Your task to perform on an android device: Go to Amazon Image 0: 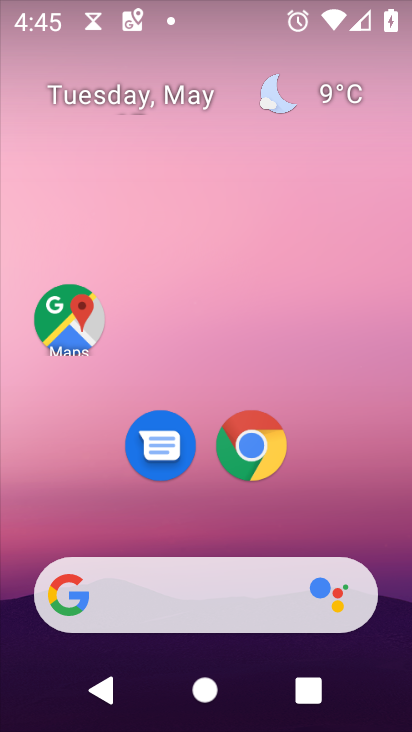
Step 0: drag from (391, 568) to (387, 19)
Your task to perform on an android device: Go to Amazon Image 1: 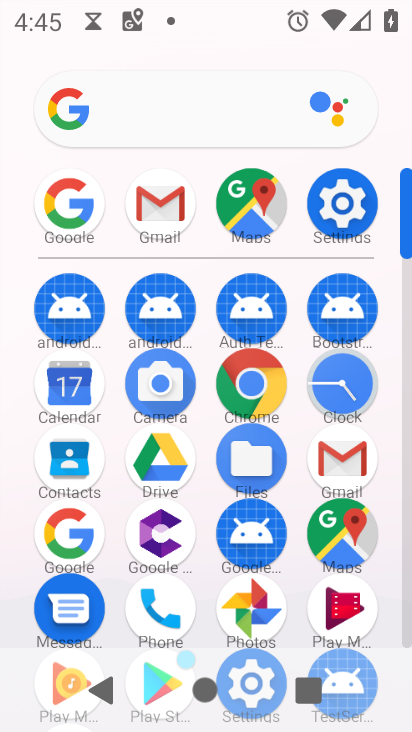
Step 1: click (229, 352)
Your task to perform on an android device: Go to Amazon Image 2: 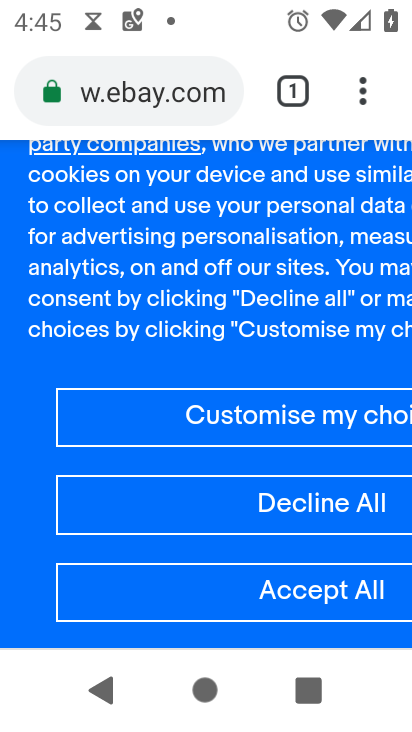
Step 2: drag from (358, 90) to (259, 178)
Your task to perform on an android device: Go to Amazon Image 3: 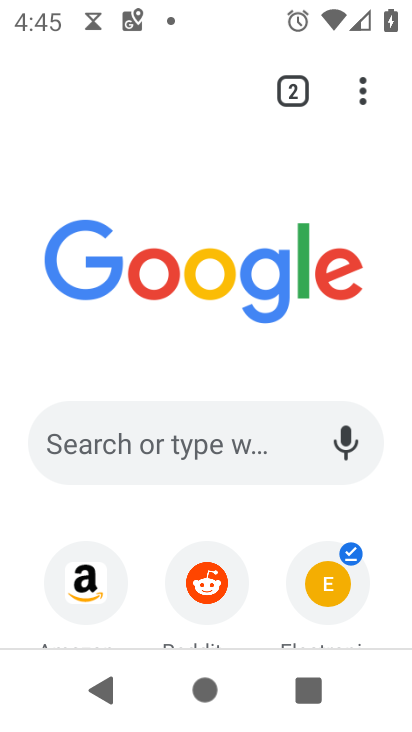
Step 3: drag from (273, 584) to (263, 189)
Your task to perform on an android device: Go to Amazon Image 4: 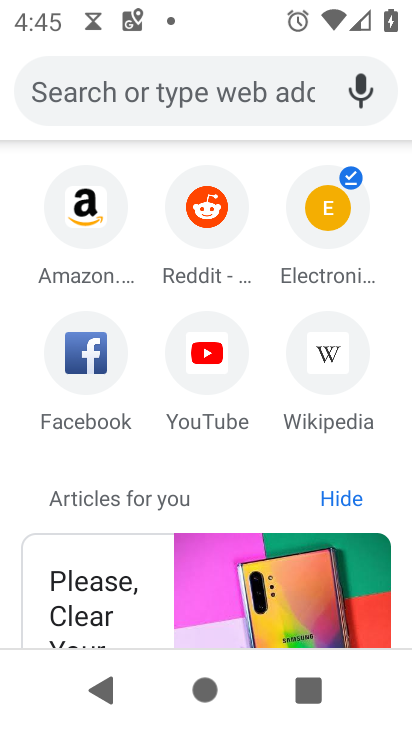
Step 4: click (100, 210)
Your task to perform on an android device: Go to Amazon Image 5: 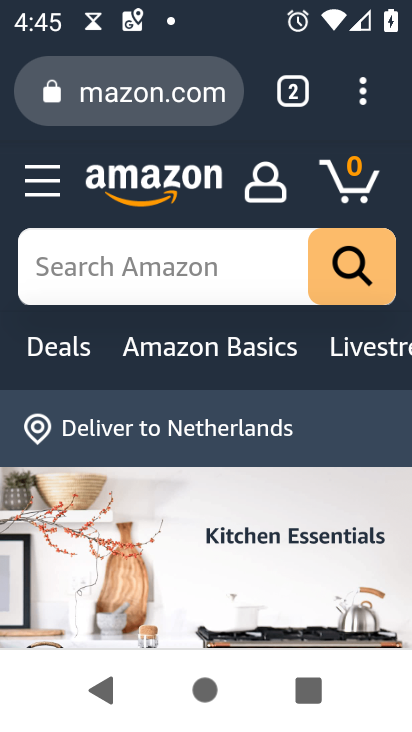
Step 5: task complete